Your task to perform on an android device: change the clock display to analog Image 0: 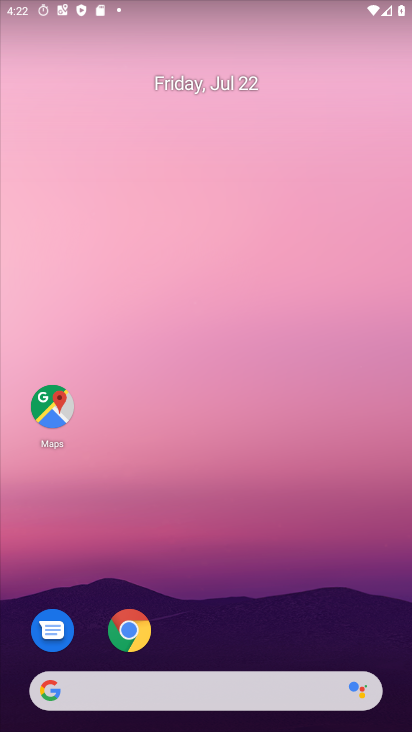
Step 0: drag from (282, 684) to (244, 73)
Your task to perform on an android device: change the clock display to analog Image 1: 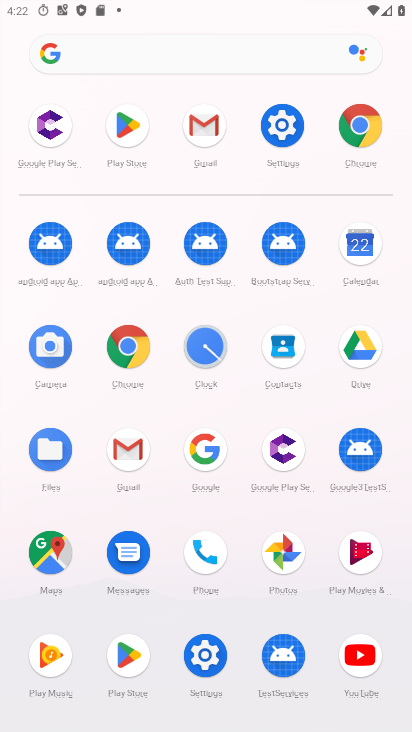
Step 1: click (212, 348)
Your task to perform on an android device: change the clock display to analog Image 2: 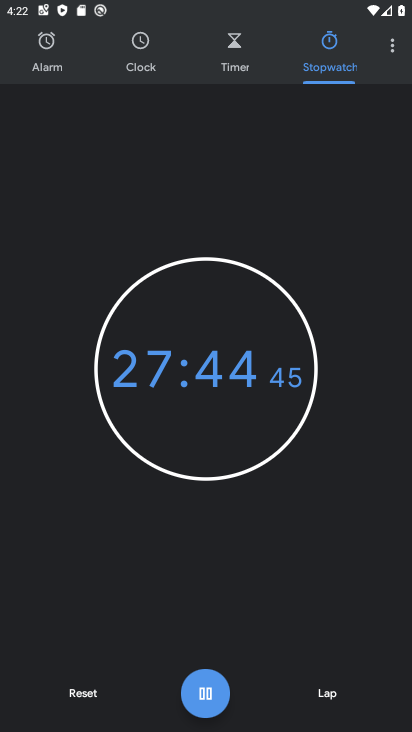
Step 2: drag from (389, 39) to (375, 186)
Your task to perform on an android device: change the clock display to analog Image 3: 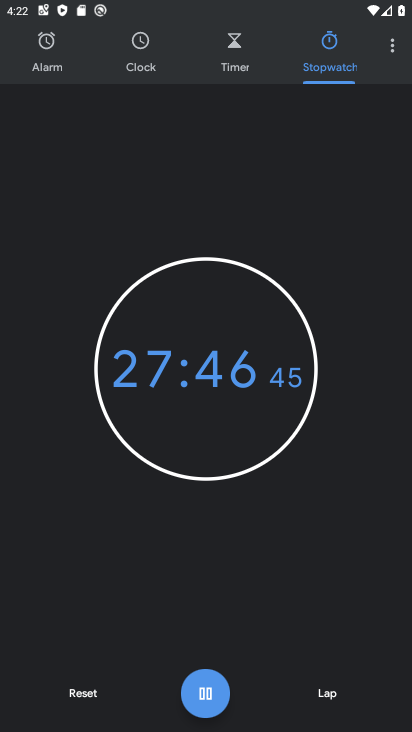
Step 3: click (388, 49)
Your task to perform on an android device: change the clock display to analog Image 4: 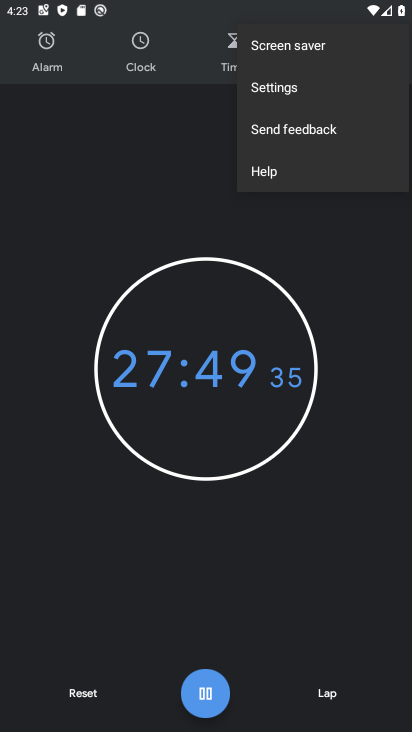
Step 4: click (292, 84)
Your task to perform on an android device: change the clock display to analog Image 5: 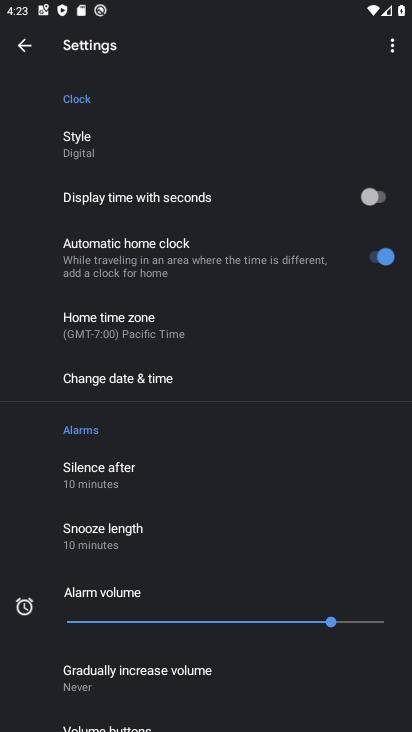
Step 5: click (133, 153)
Your task to perform on an android device: change the clock display to analog Image 6: 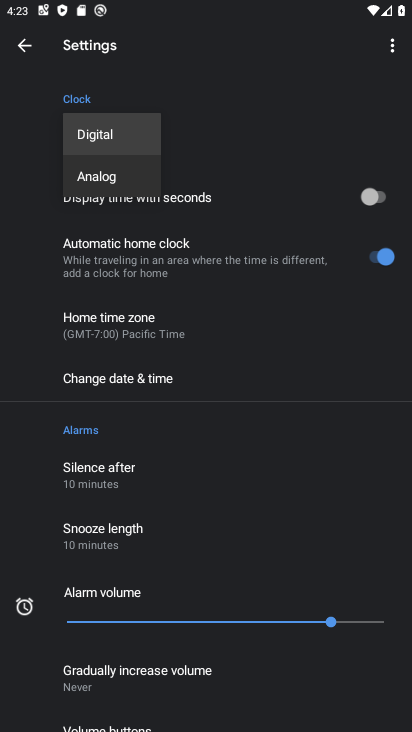
Step 6: click (120, 171)
Your task to perform on an android device: change the clock display to analog Image 7: 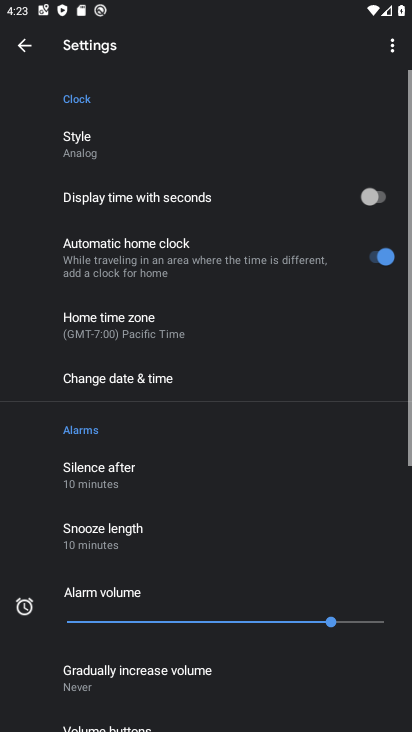
Step 7: task complete